Your task to perform on an android device: Go to calendar. Show me events next week Image 0: 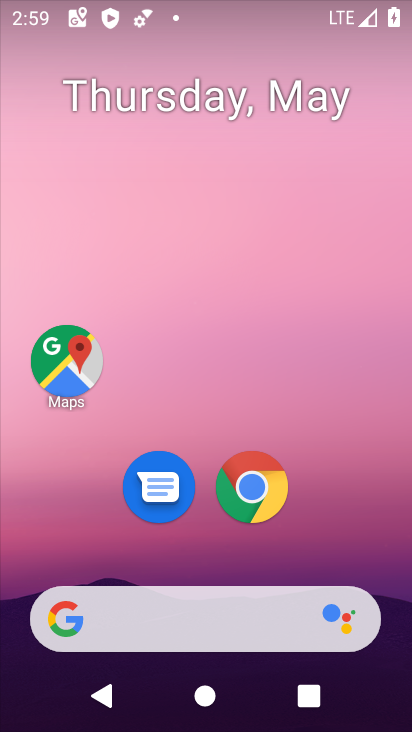
Step 0: drag from (193, 597) to (242, 171)
Your task to perform on an android device: Go to calendar. Show me events next week Image 1: 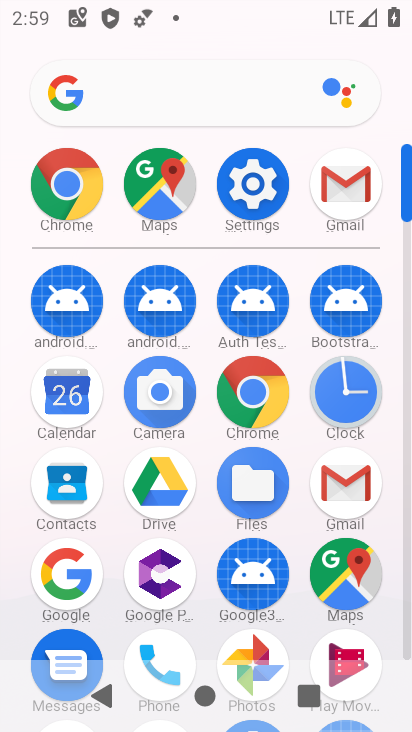
Step 1: click (74, 387)
Your task to perform on an android device: Go to calendar. Show me events next week Image 2: 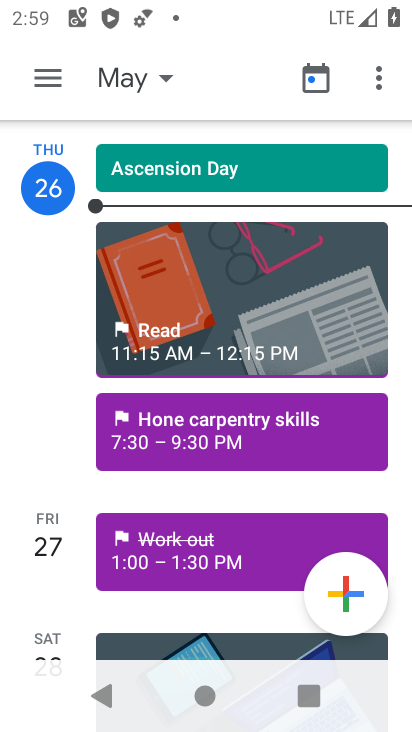
Step 2: click (146, 83)
Your task to perform on an android device: Go to calendar. Show me events next week Image 3: 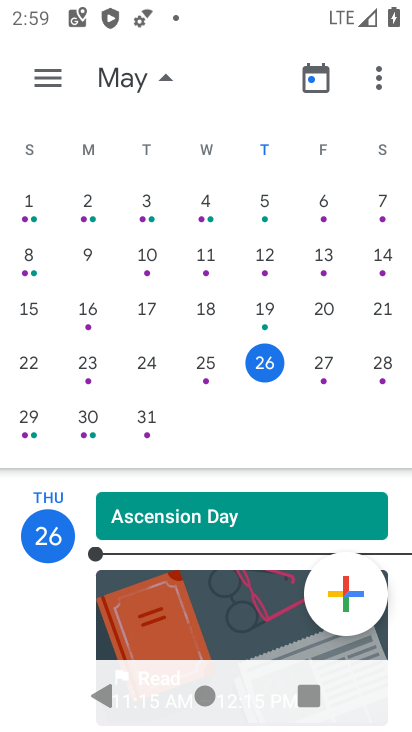
Step 3: click (29, 422)
Your task to perform on an android device: Go to calendar. Show me events next week Image 4: 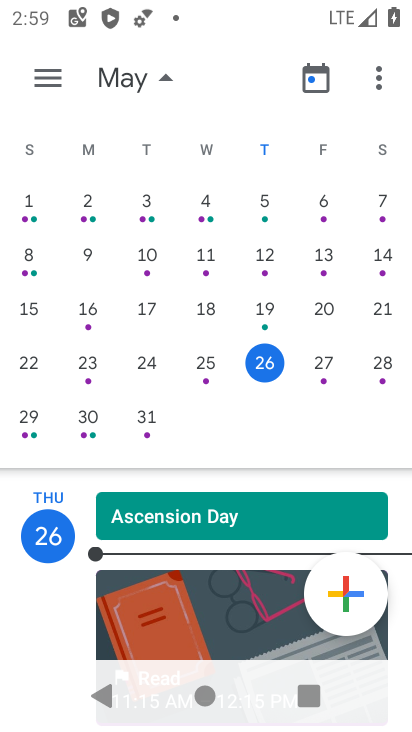
Step 4: click (38, 431)
Your task to perform on an android device: Go to calendar. Show me events next week Image 5: 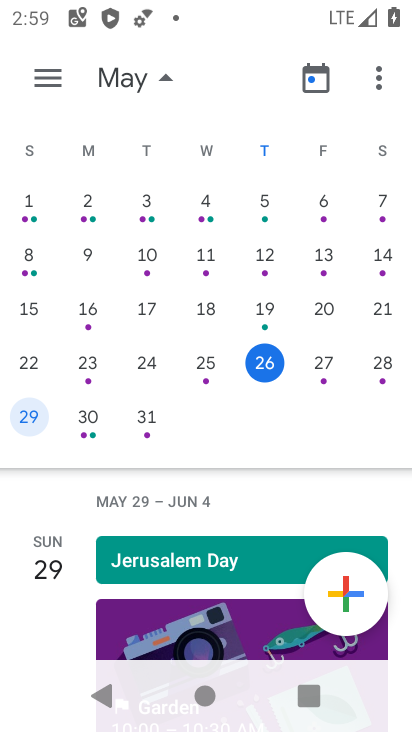
Step 5: task complete